Your task to perform on an android device: Open Google Chrome and open the bookmarks view Image 0: 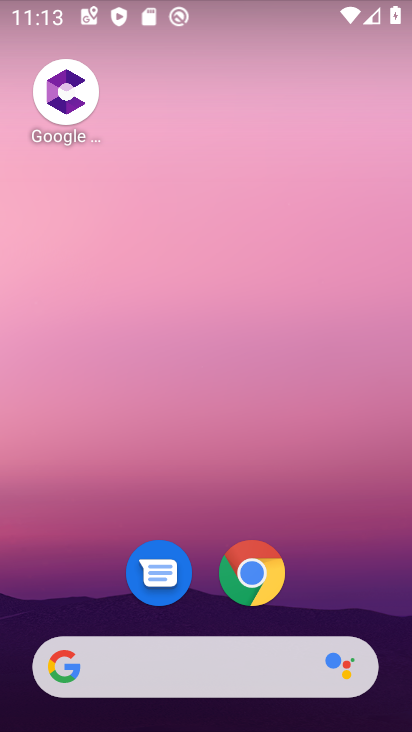
Step 0: drag from (223, 601) to (174, 221)
Your task to perform on an android device: Open Google Chrome and open the bookmarks view Image 1: 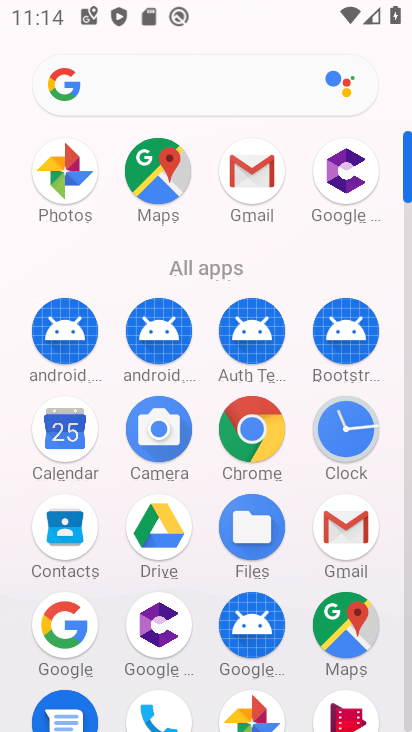
Step 1: click (241, 434)
Your task to perform on an android device: Open Google Chrome and open the bookmarks view Image 2: 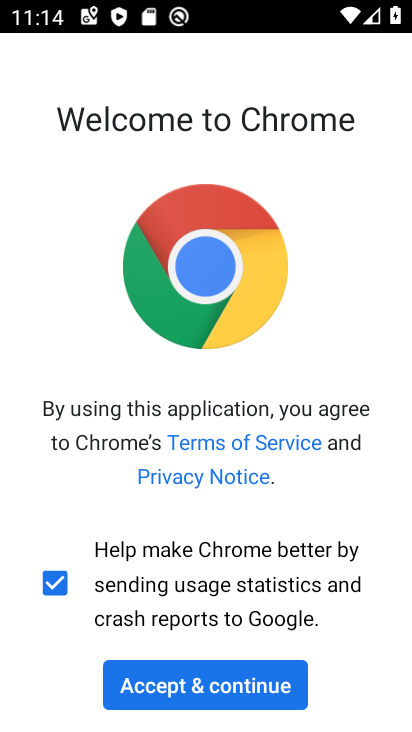
Step 2: click (200, 687)
Your task to perform on an android device: Open Google Chrome and open the bookmarks view Image 3: 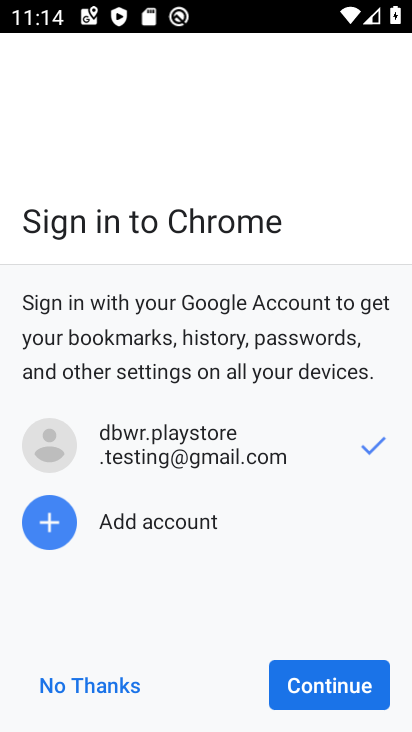
Step 3: click (337, 692)
Your task to perform on an android device: Open Google Chrome and open the bookmarks view Image 4: 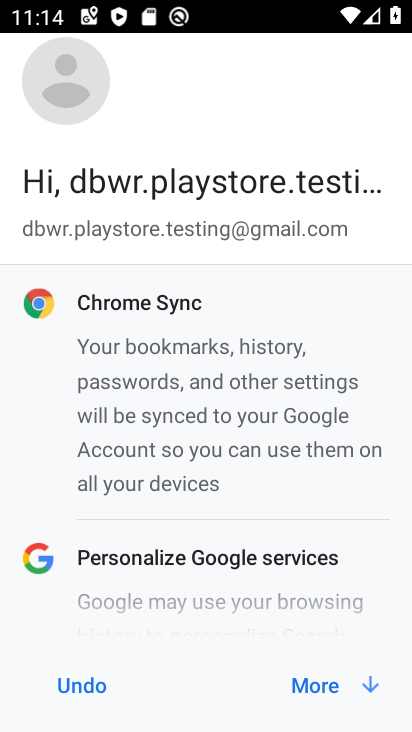
Step 4: click (328, 686)
Your task to perform on an android device: Open Google Chrome and open the bookmarks view Image 5: 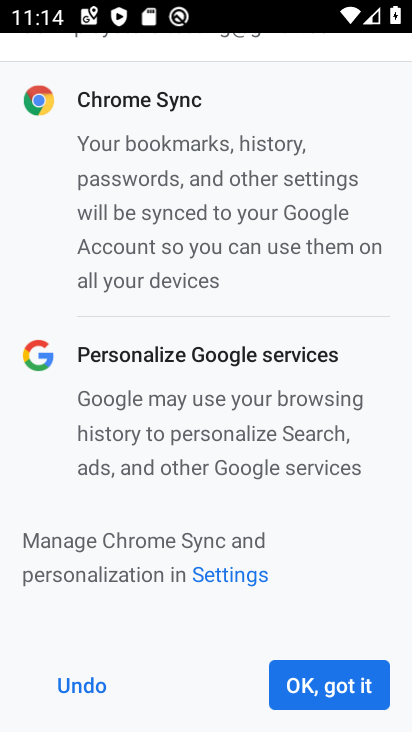
Step 5: click (328, 686)
Your task to perform on an android device: Open Google Chrome and open the bookmarks view Image 6: 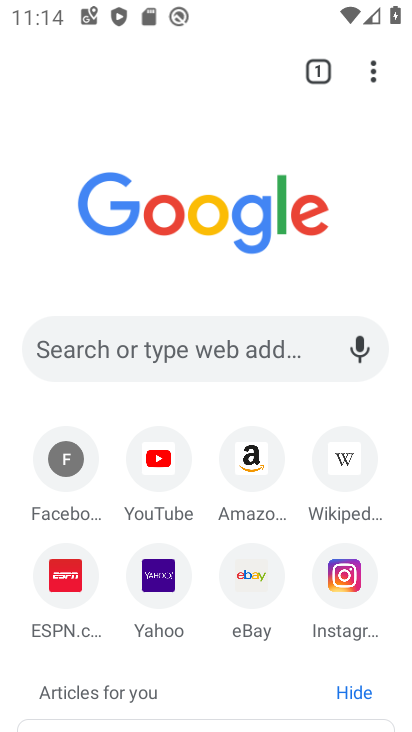
Step 6: click (373, 69)
Your task to perform on an android device: Open Google Chrome and open the bookmarks view Image 7: 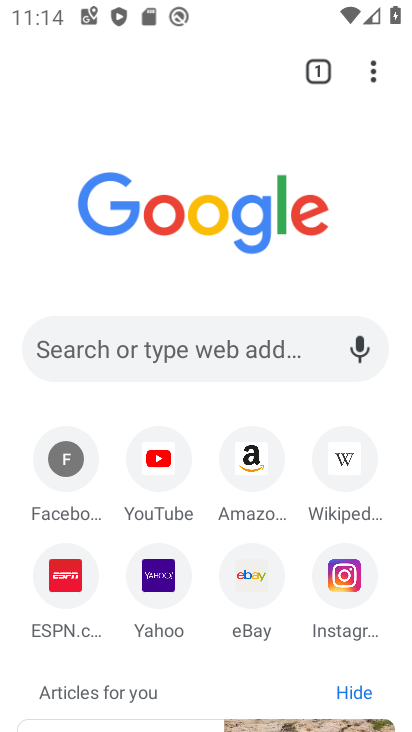
Step 7: click (367, 71)
Your task to perform on an android device: Open Google Chrome and open the bookmarks view Image 8: 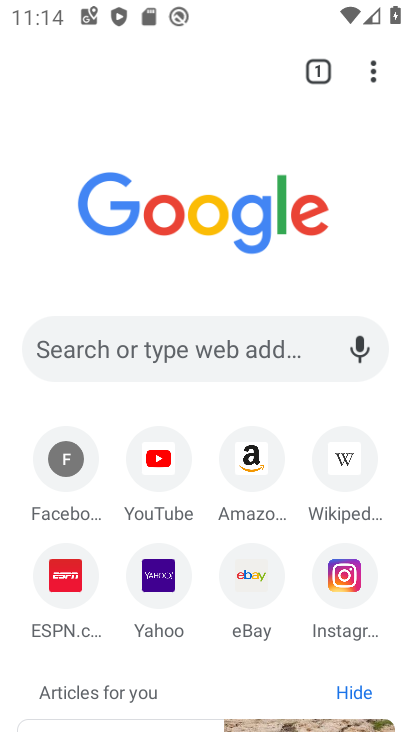
Step 8: click (374, 73)
Your task to perform on an android device: Open Google Chrome and open the bookmarks view Image 9: 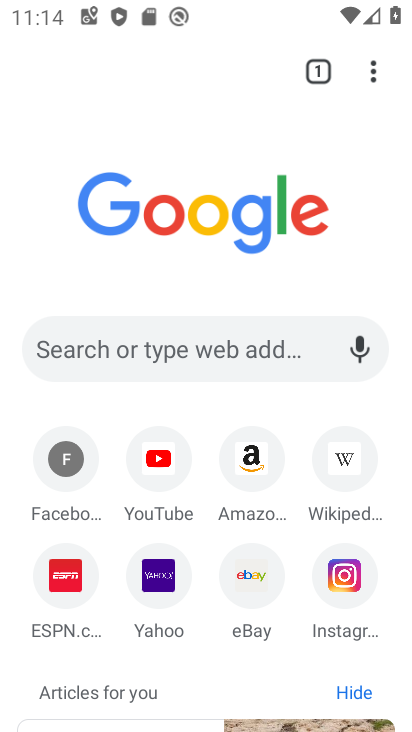
Step 9: click (374, 73)
Your task to perform on an android device: Open Google Chrome and open the bookmarks view Image 10: 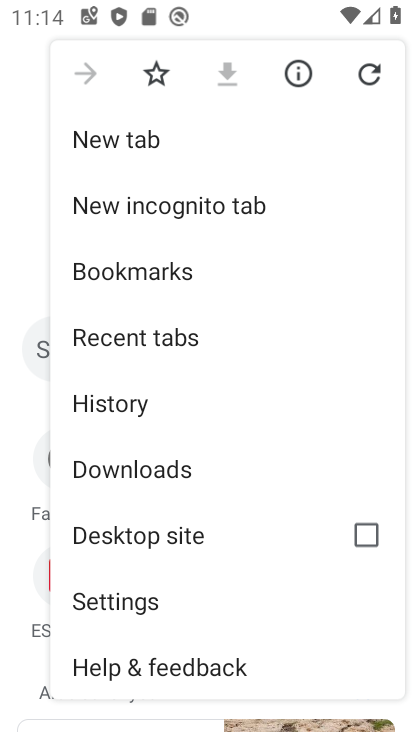
Step 10: click (151, 269)
Your task to perform on an android device: Open Google Chrome and open the bookmarks view Image 11: 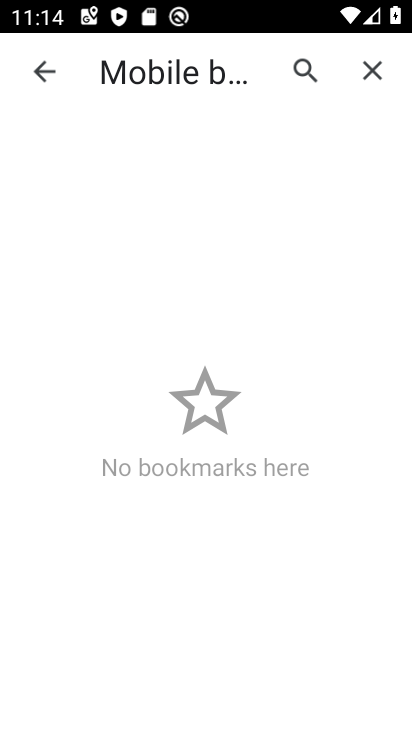
Step 11: task complete